Your task to perform on an android device: Open CNN.com Image 0: 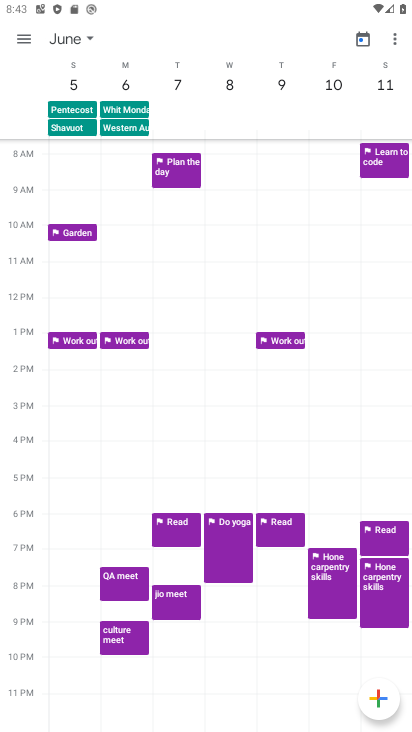
Step 0: press home button
Your task to perform on an android device: Open CNN.com Image 1: 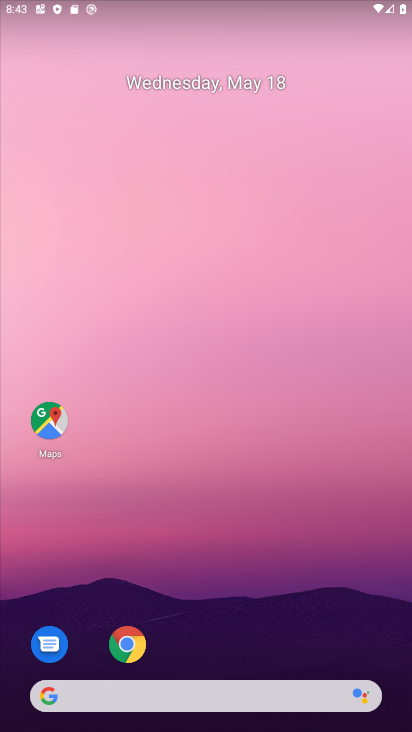
Step 1: click (110, 690)
Your task to perform on an android device: Open CNN.com Image 2: 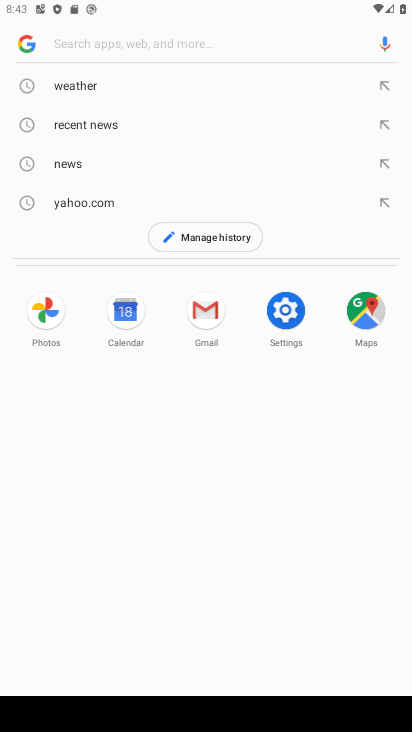
Step 2: type "CNN.com"
Your task to perform on an android device: Open CNN.com Image 3: 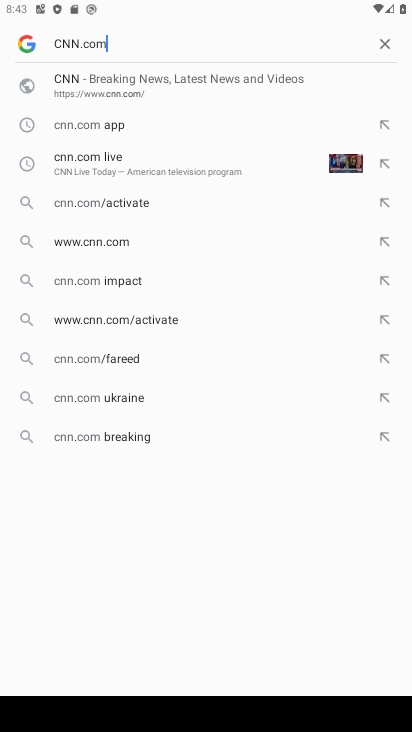
Step 3: click (166, 93)
Your task to perform on an android device: Open CNN.com Image 4: 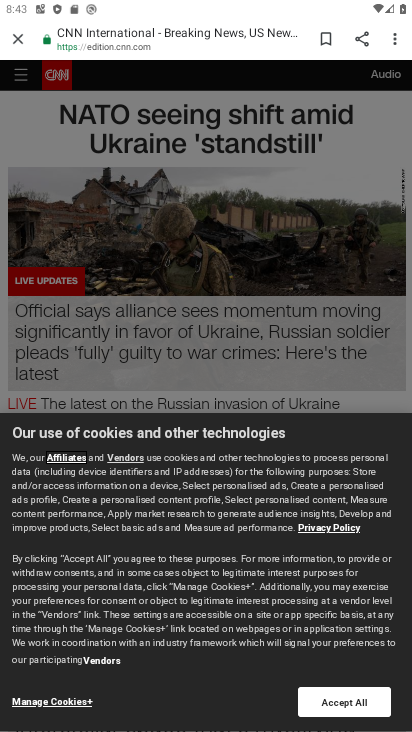
Step 4: task complete